Your task to perform on an android device: Open calendar and show me the second week of next month Image 0: 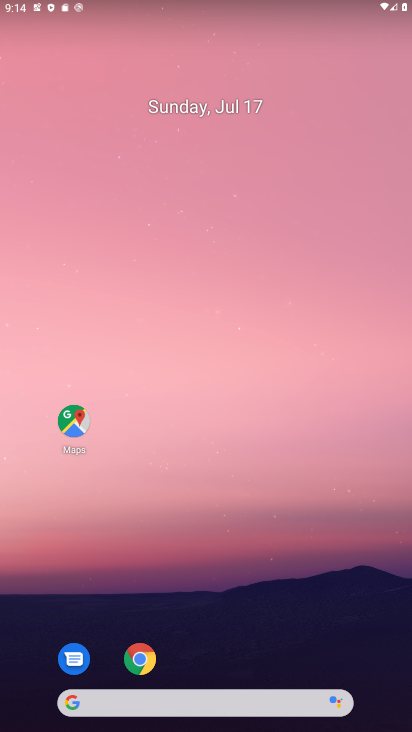
Step 0: drag from (191, 649) to (219, 50)
Your task to perform on an android device: Open calendar and show me the second week of next month Image 1: 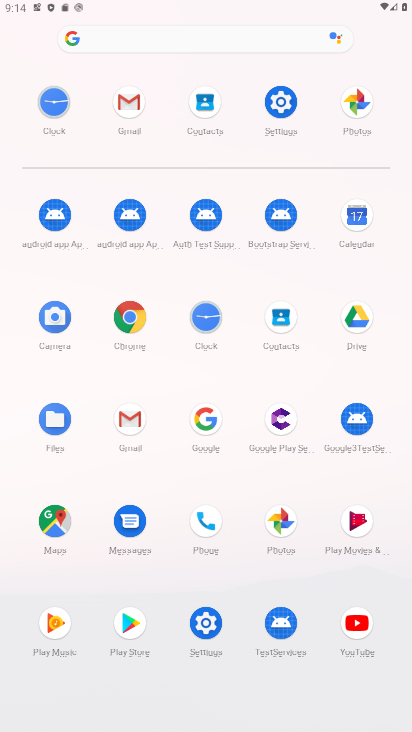
Step 1: click (366, 222)
Your task to perform on an android device: Open calendar and show me the second week of next month Image 2: 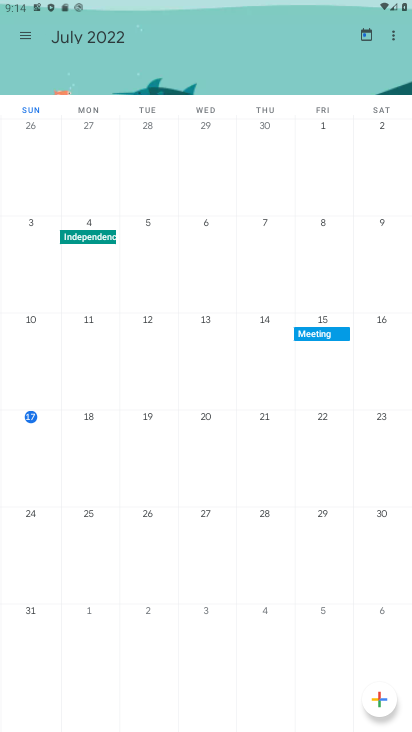
Step 2: click (137, 38)
Your task to perform on an android device: Open calendar and show me the second week of next month Image 3: 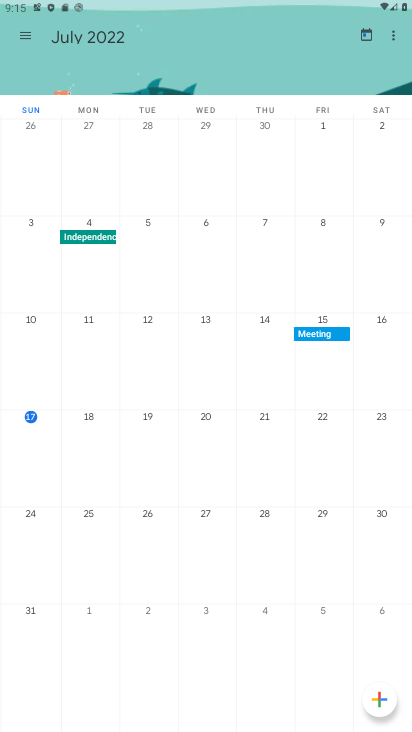
Step 3: drag from (352, 288) to (10, 287)
Your task to perform on an android device: Open calendar and show me the second week of next month Image 4: 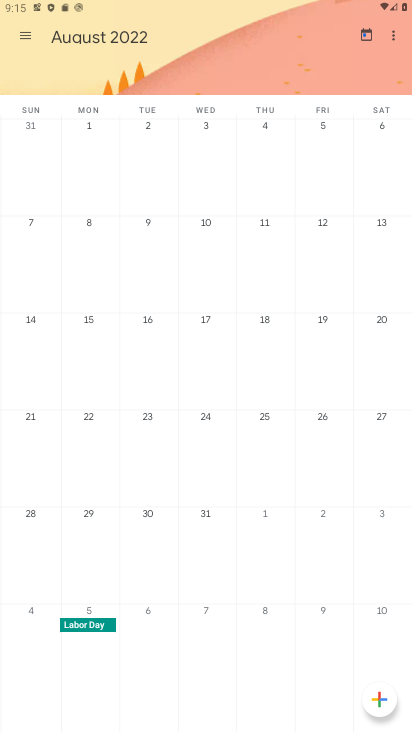
Step 4: click (38, 261)
Your task to perform on an android device: Open calendar and show me the second week of next month Image 5: 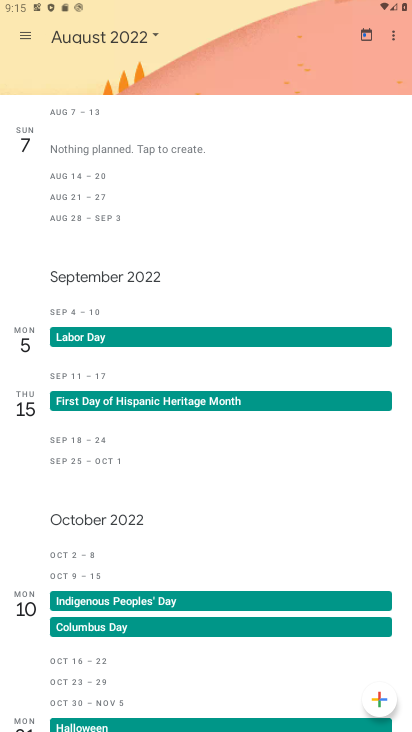
Step 5: task complete